Your task to perform on an android device: turn off location history Image 0: 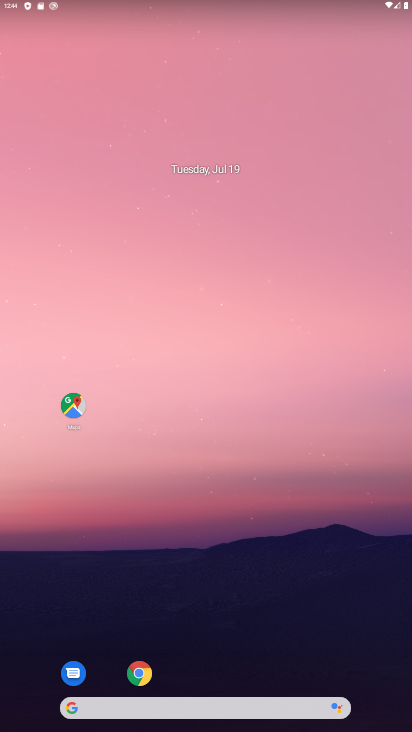
Step 0: drag from (219, 689) to (217, 100)
Your task to perform on an android device: turn off location history Image 1: 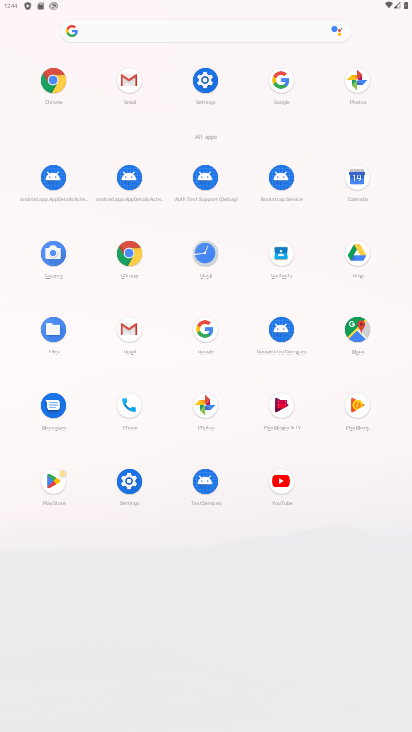
Step 1: click (132, 475)
Your task to perform on an android device: turn off location history Image 2: 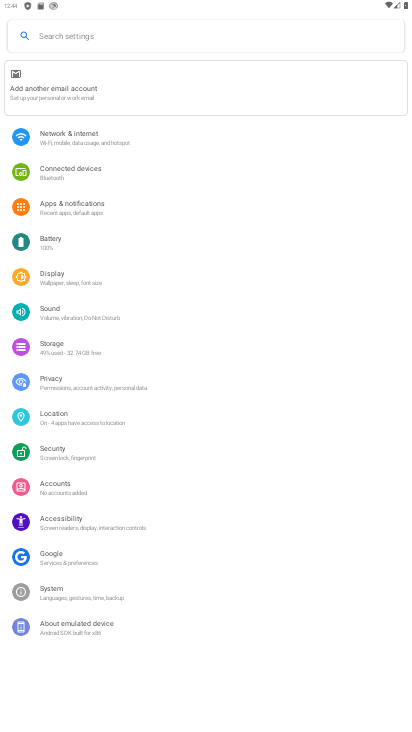
Step 2: click (60, 417)
Your task to perform on an android device: turn off location history Image 3: 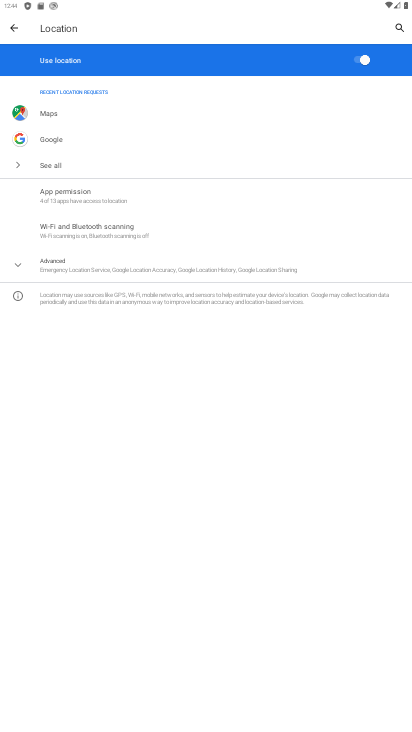
Step 3: click (56, 250)
Your task to perform on an android device: turn off location history Image 4: 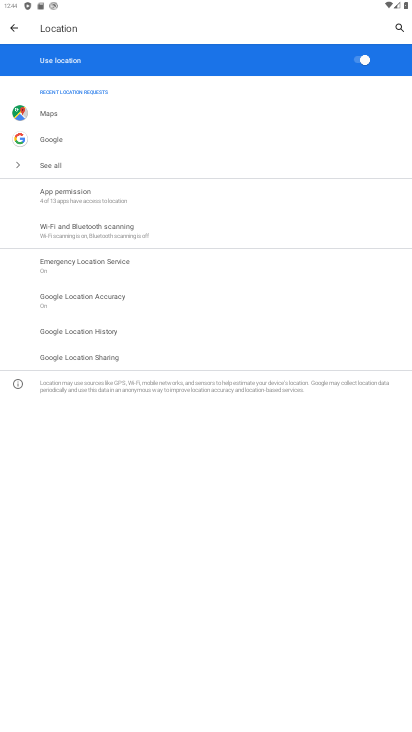
Step 4: click (77, 332)
Your task to perform on an android device: turn off location history Image 5: 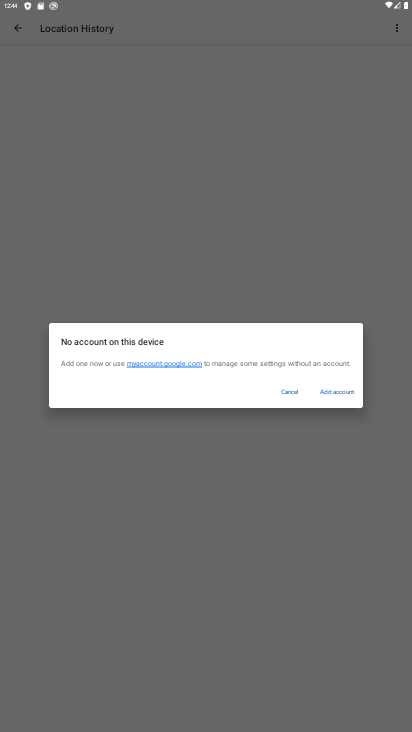
Step 5: task complete